Your task to perform on an android device: turn off location history Image 0: 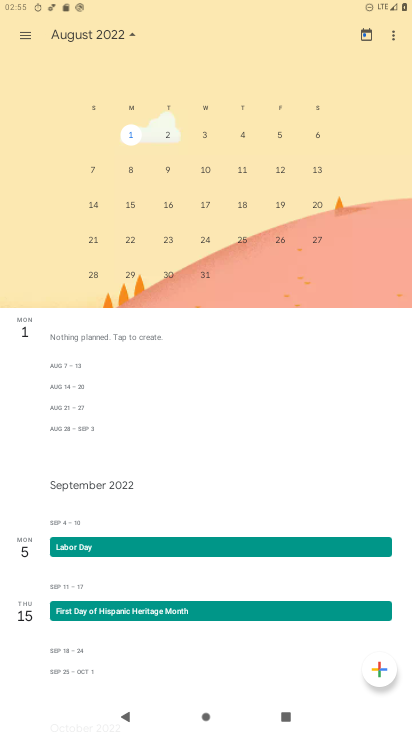
Step 0: press home button
Your task to perform on an android device: turn off location history Image 1: 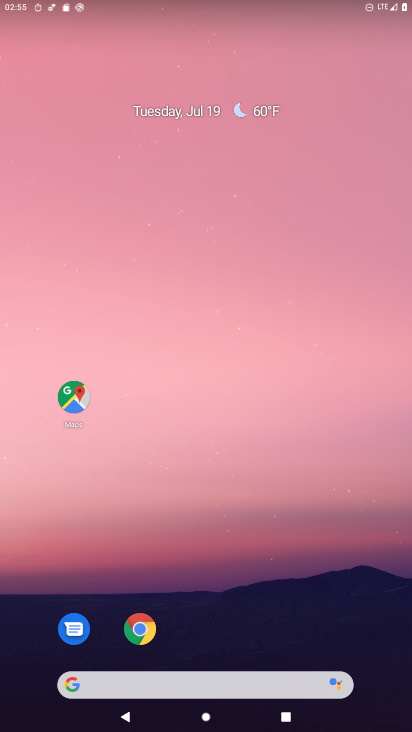
Step 1: drag from (203, 631) to (196, 228)
Your task to perform on an android device: turn off location history Image 2: 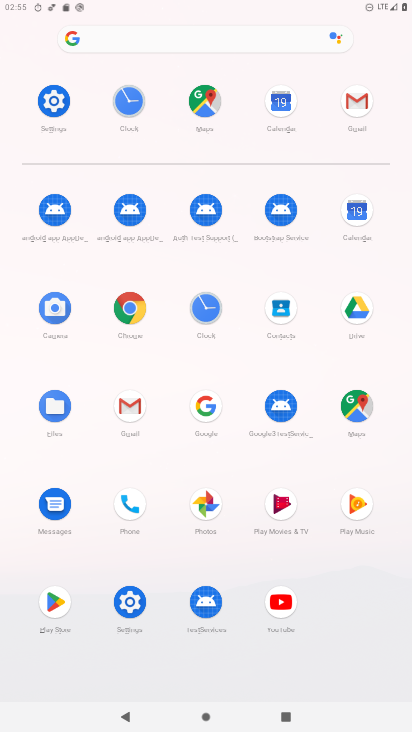
Step 2: click (59, 116)
Your task to perform on an android device: turn off location history Image 3: 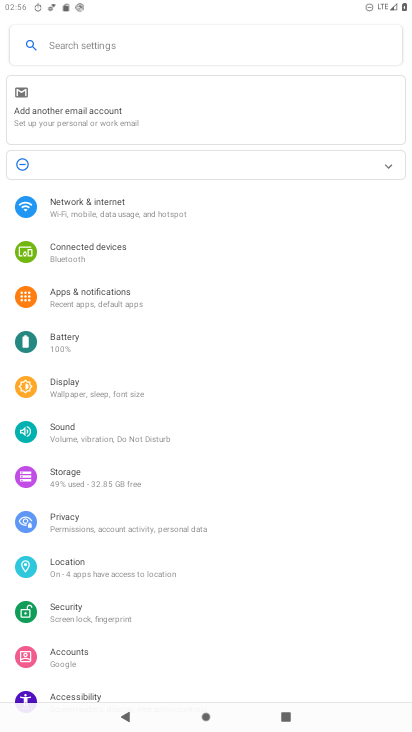
Step 3: click (124, 561)
Your task to perform on an android device: turn off location history Image 4: 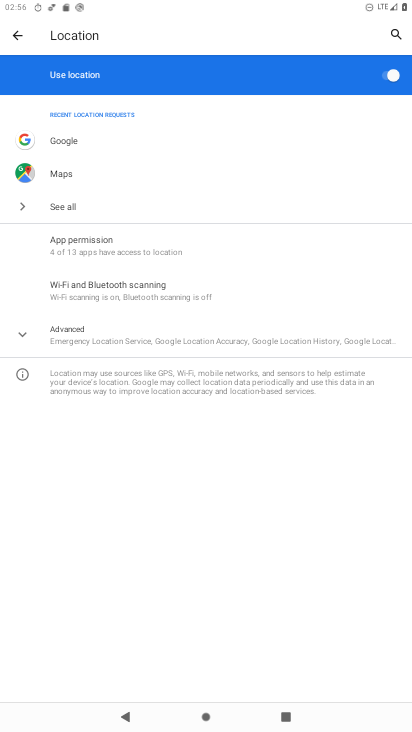
Step 4: click (107, 331)
Your task to perform on an android device: turn off location history Image 5: 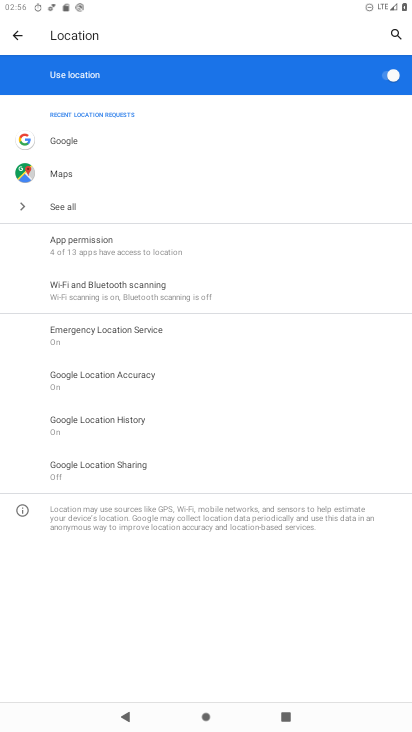
Step 5: click (139, 414)
Your task to perform on an android device: turn off location history Image 6: 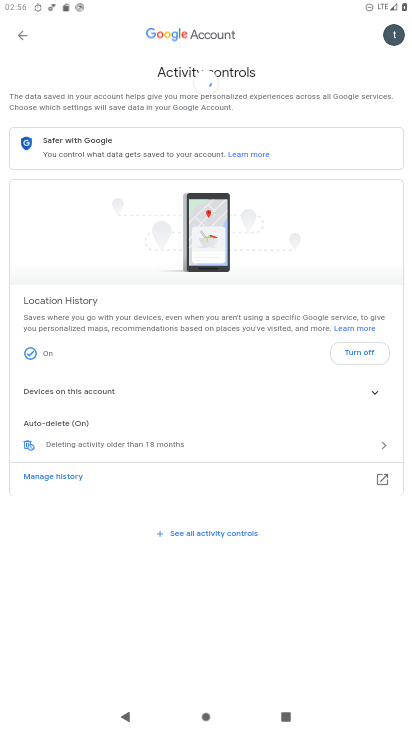
Step 6: click (346, 360)
Your task to perform on an android device: turn off location history Image 7: 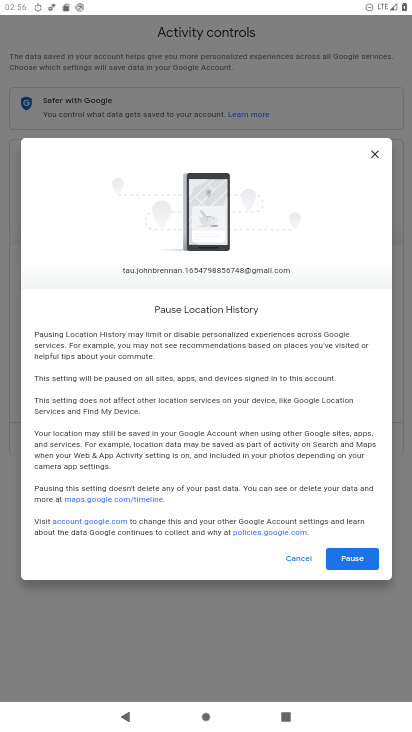
Step 7: click (344, 550)
Your task to perform on an android device: turn off location history Image 8: 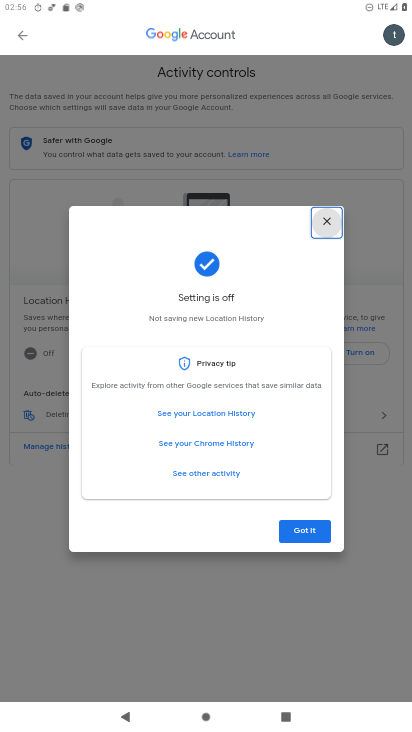
Step 8: task complete